Your task to perform on an android device: delete location history Image 0: 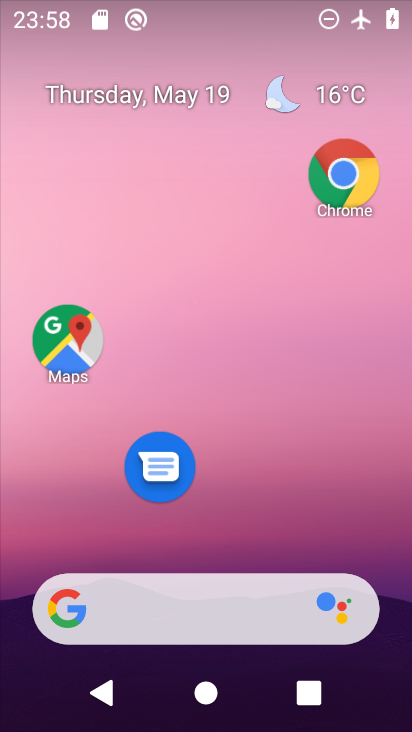
Step 0: drag from (272, 418) to (286, 112)
Your task to perform on an android device: delete location history Image 1: 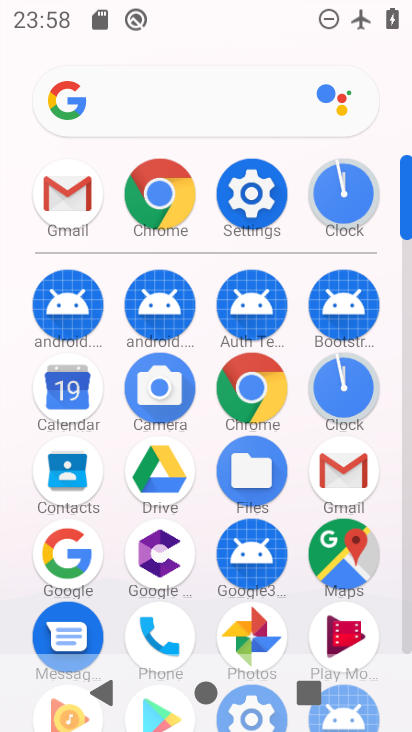
Step 1: click (255, 196)
Your task to perform on an android device: delete location history Image 2: 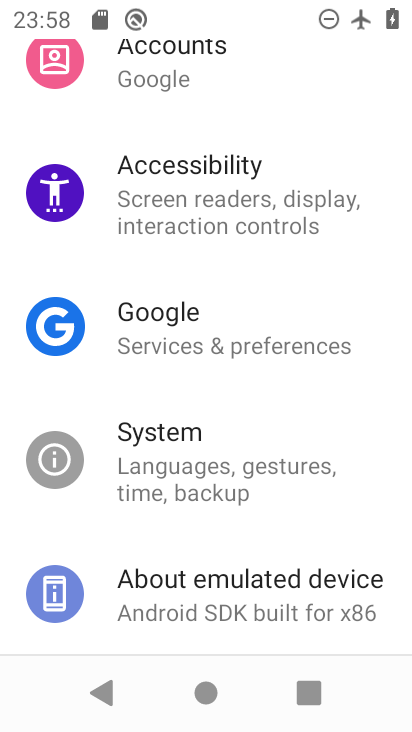
Step 2: drag from (266, 139) to (312, 112)
Your task to perform on an android device: delete location history Image 3: 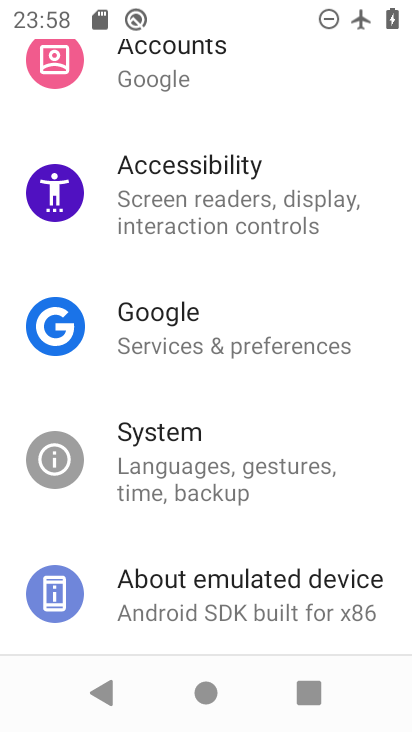
Step 3: drag from (286, 110) to (199, 591)
Your task to perform on an android device: delete location history Image 4: 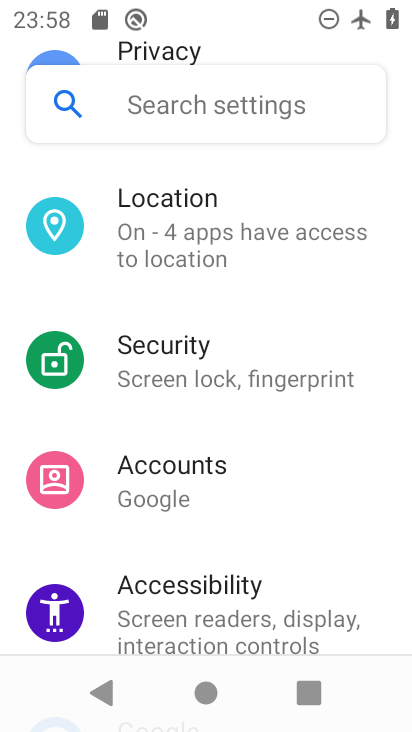
Step 4: click (244, 223)
Your task to perform on an android device: delete location history Image 5: 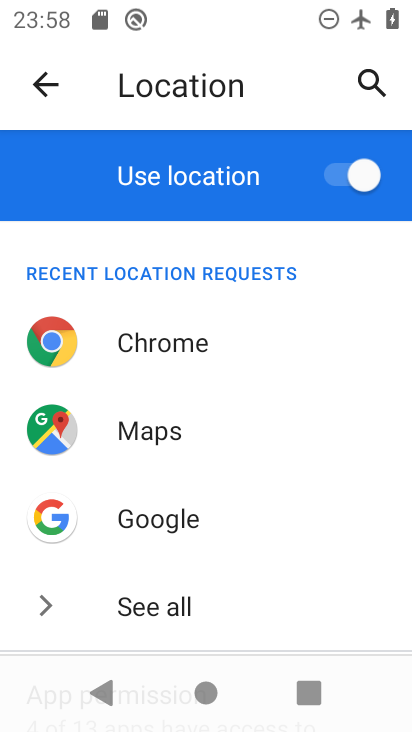
Step 5: drag from (221, 592) to (256, 241)
Your task to perform on an android device: delete location history Image 6: 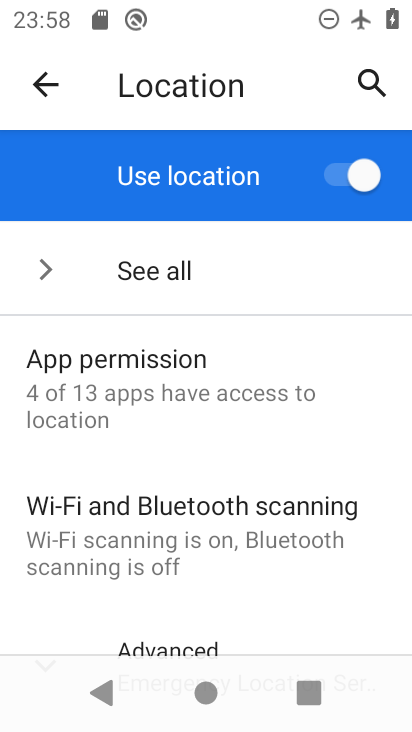
Step 6: drag from (238, 587) to (254, 333)
Your task to perform on an android device: delete location history Image 7: 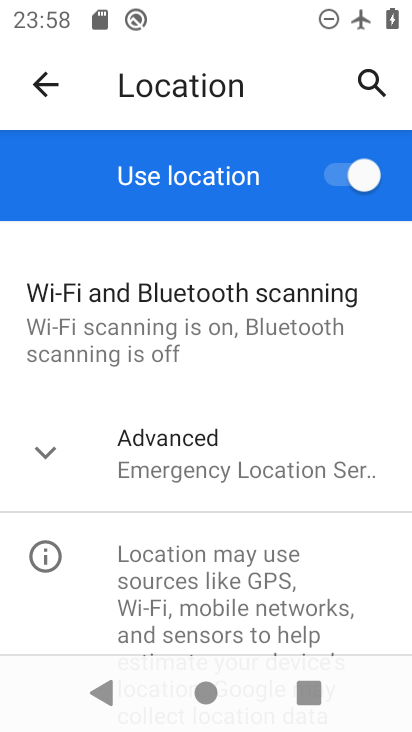
Step 7: click (191, 436)
Your task to perform on an android device: delete location history Image 8: 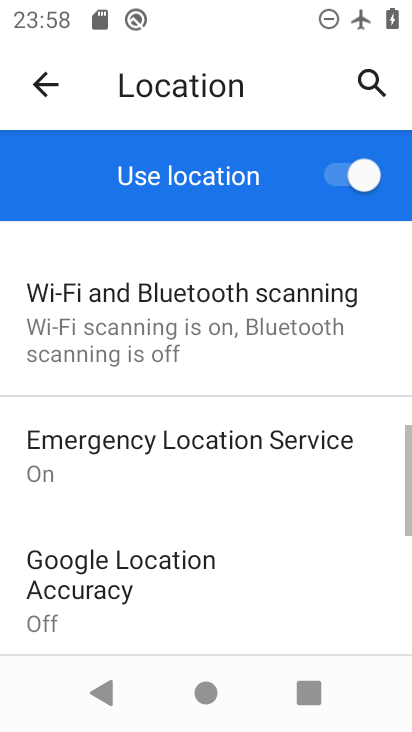
Step 8: task complete